Your task to perform on an android device: add a contact in the contacts app Image 0: 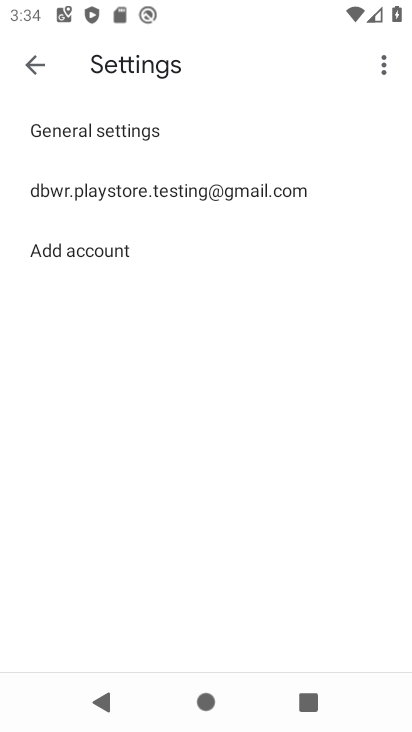
Step 0: press home button
Your task to perform on an android device: add a contact in the contacts app Image 1: 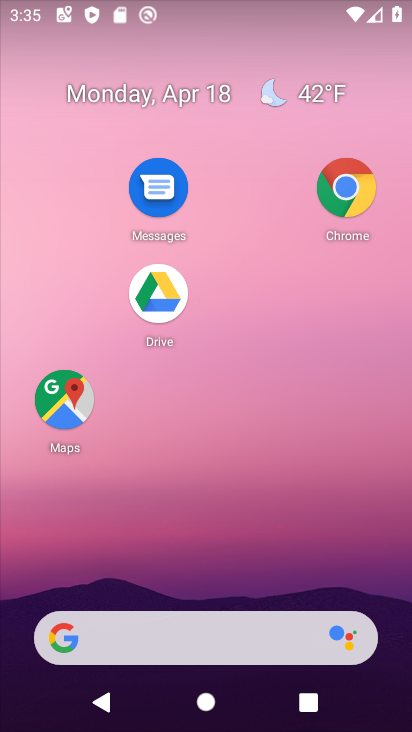
Step 1: drag from (150, 568) to (254, 38)
Your task to perform on an android device: add a contact in the contacts app Image 2: 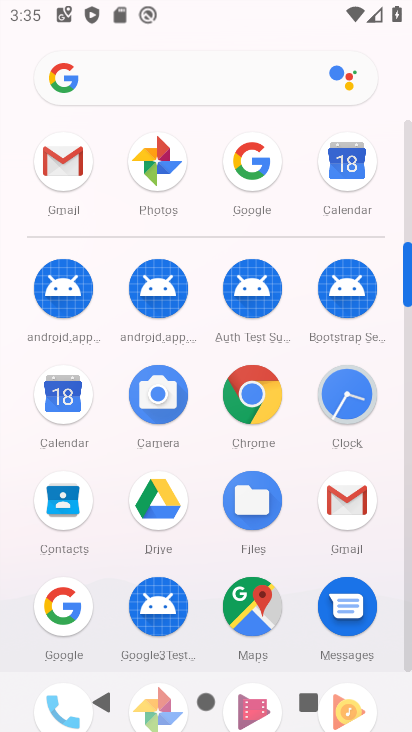
Step 2: drag from (102, 580) to (105, 475)
Your task to perform on an android device: add a contact in the contacts app Image 3: 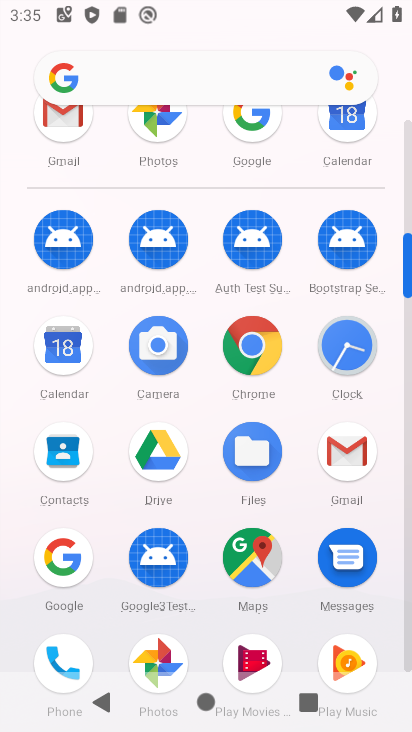
Step 3: click (63, 450)
Your task to perform on an android device: add a contact in the contacts app Image 4: 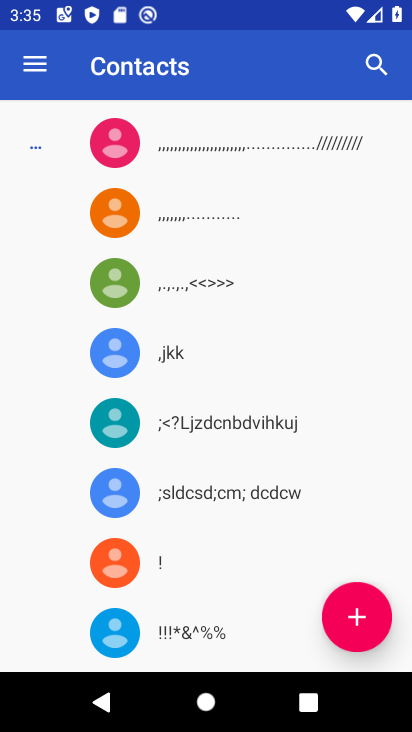
Step 4: click (365, 621)
Your task to perform on an android device: add a contact in the contacts app Image 5: 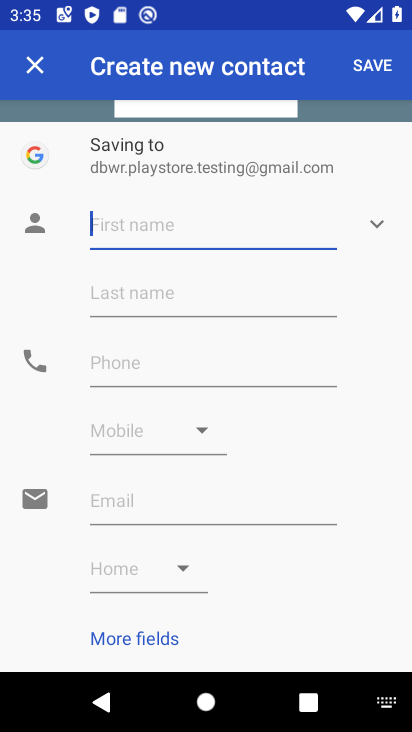
Step 5: click (187, 244)
Your task to perform on an android device: add a contact in the contacts app Image 6: 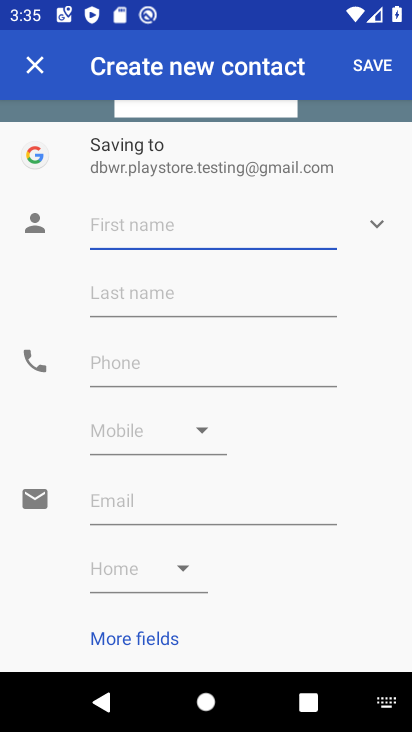
Step 6: type "Alon"
Your task to perform on an android device: add a contact in the contacts app Image 7: 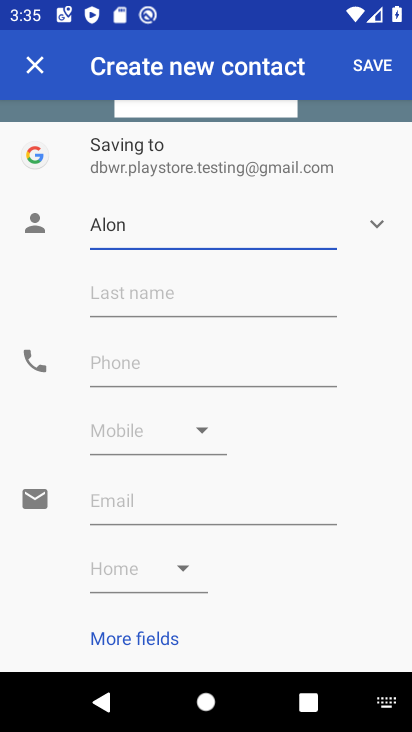
Step 7: click (164, 305)
Your task to perform on an android device: add a contact in the contacts app Image 8: 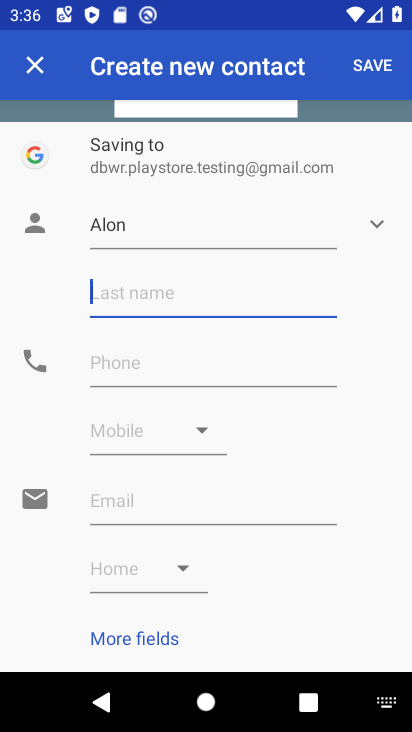
Step 8: type "Mask"
Your task to perform on an android device: add a contact in the contacts app Image 9: 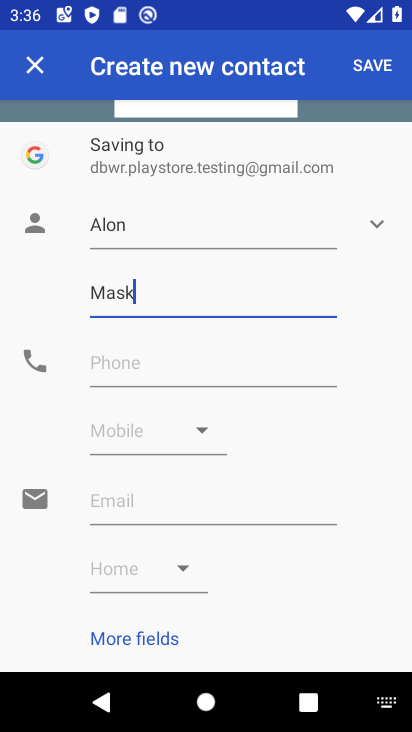
Step 9: type ""
Your task to perform on an android device: add a contact in the contacts app Image 10: 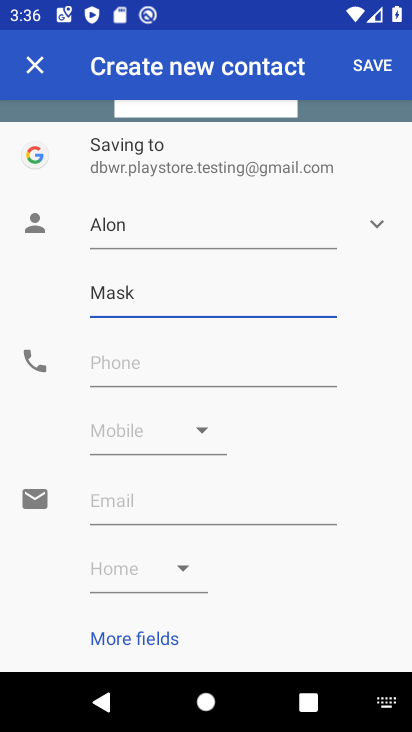
Step 10: click (213, 362)
Your task to perform on an android device: add a contact in the contacts app Image 11: 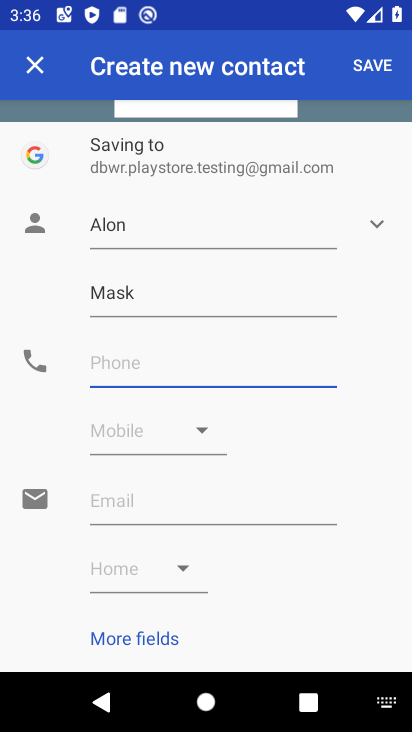
Step 11: type "0987656546543"
Your task to perform on an android device: add a contact in the contacts app Image 12: 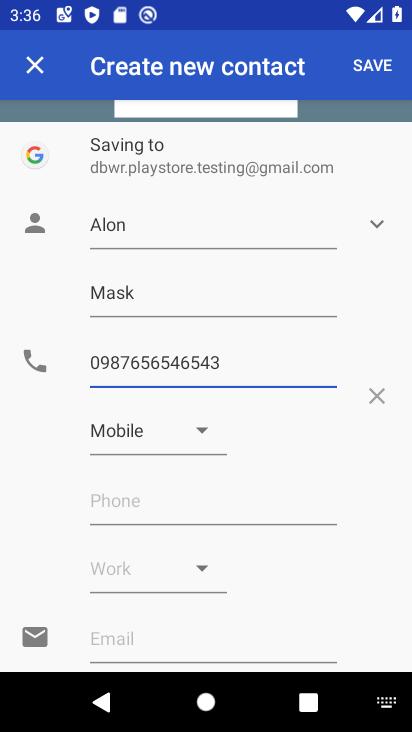
Step 12: click (372, 58)
Your task to perform on an android device: add a contact in the contacts app Image 13: 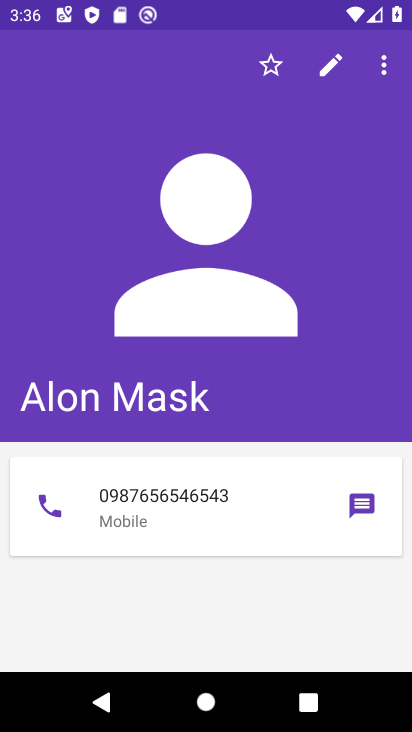
Step 13: task complete